Your task to perform on an android device: turn on the 24-hour format for clock Image 0: 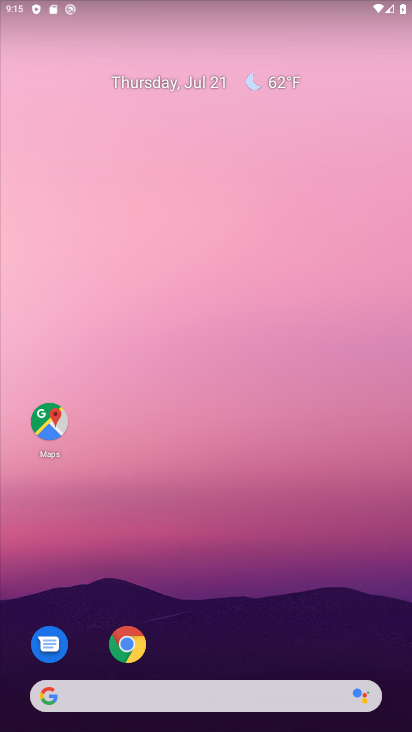
Step 0: drag from (196, 500) to (179, 85)
Your task to perform on an android device: turn on the 24-hour format for clock Image 1: 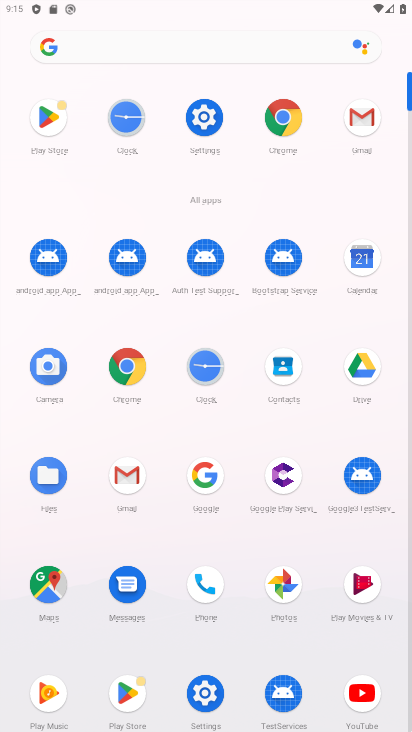
Step 1: click (120, 121)
Your task to perform on an android device: turn on the 24-hour format for clock Image 2: 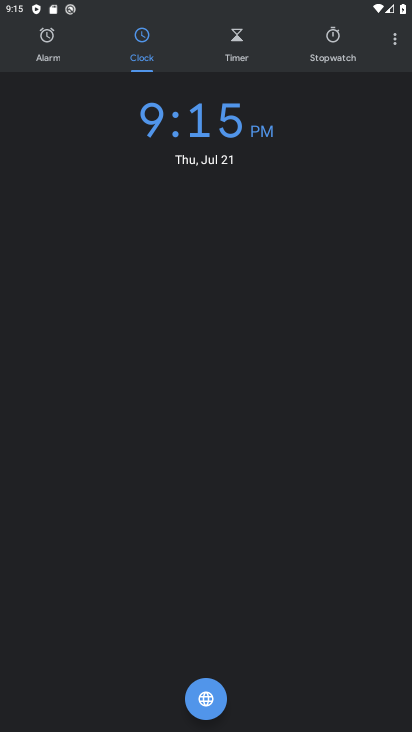
Step 2: click (390, 55)
Your task to perform on an android device: turn on the 24-hour format for clock Image 3: 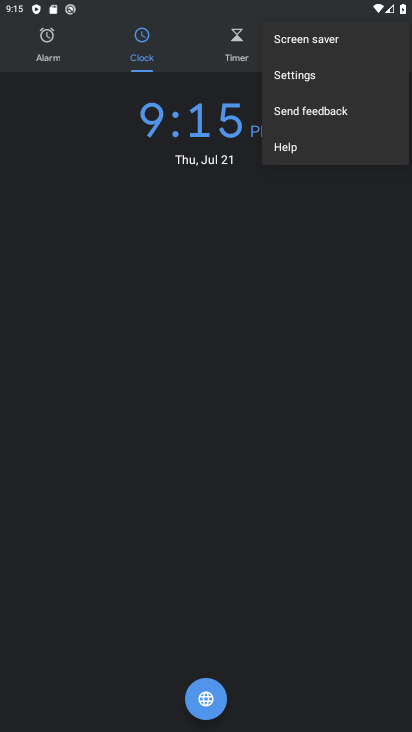
Step 3: click (308, 82)
Your task to perform on an android device: turn on the 24-hour format for clock Image 4: 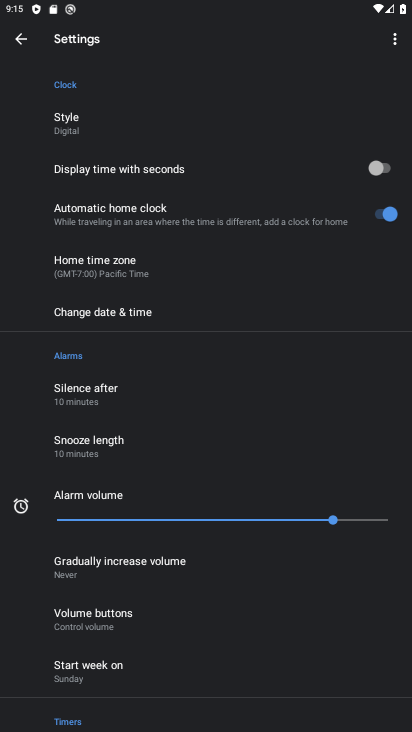
Step 4: click (97, 317)
Your task to perform on an android device: turn on the 24-hour format for clock Image 5: 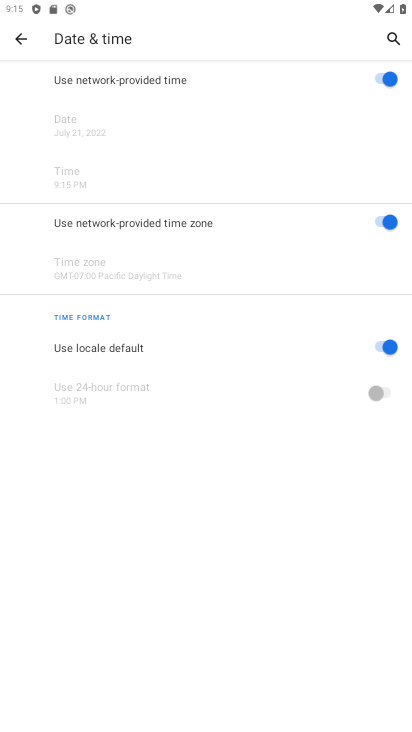
Step 5: click (388, 344)
Your task to perform on an android device: turn on the 24-hour format for clock Image 6: 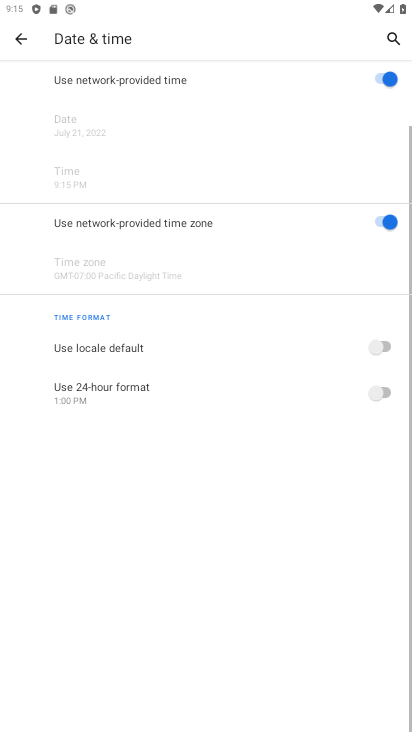
Step 6: click (376, 399)
Your task to perform on an android device: turn on the 24-hour format for clock Image 7: 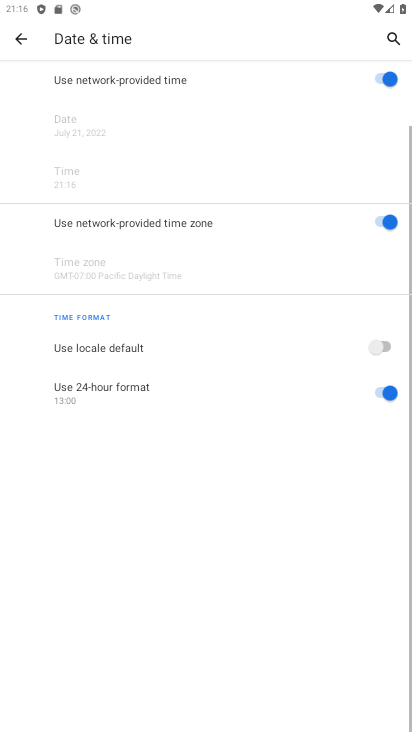
Step 7: task complete